Your task to perform on an android device: Is it going to rain this weekend? Image 0: 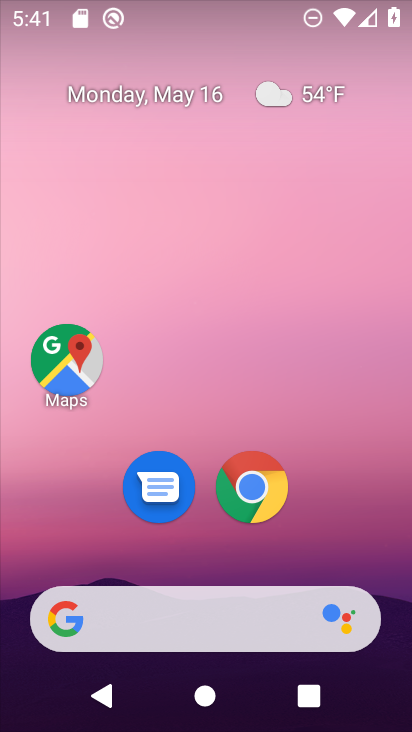
Step 0: drag from (176, 589) to (145, 240)
Your task to perform on an android device: Is it going to rain this weekend? Image 1: 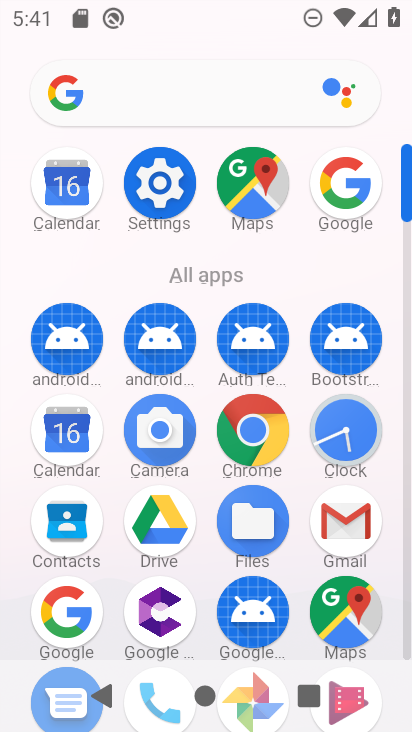
Step 1: drag from (148, 654) to (113, 332)
Your task to perform on an android device: Is it going to rain this weekend? Image 2: 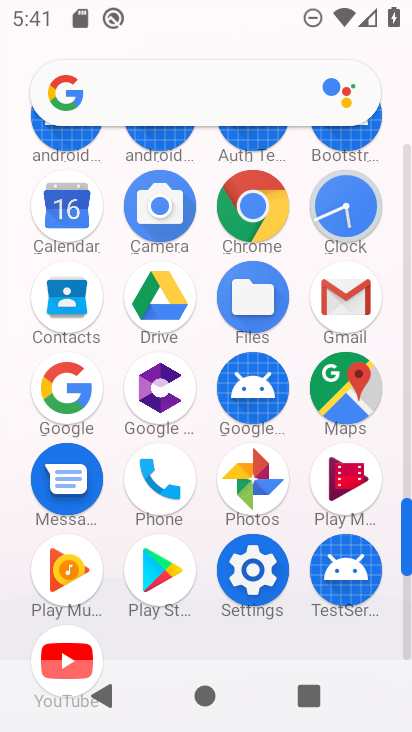
Step 2: click (74, 377)
Your task to perform on an android device: Is it going to rain this weekend? Image 3: 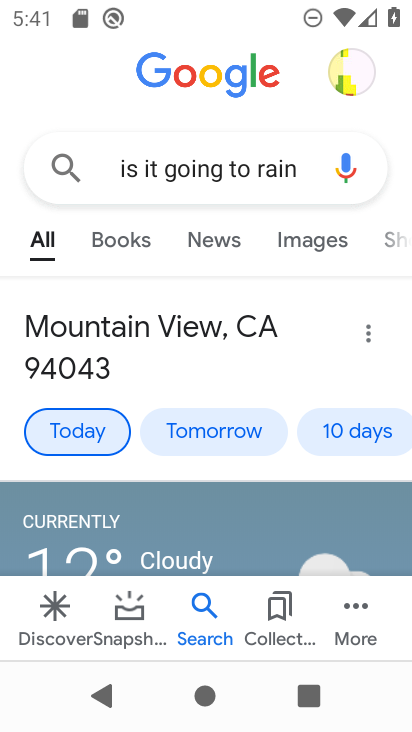
Step 3: click (337, 433)
Your task to perform on an android device: Is it going to rain this weekend? Image 4: 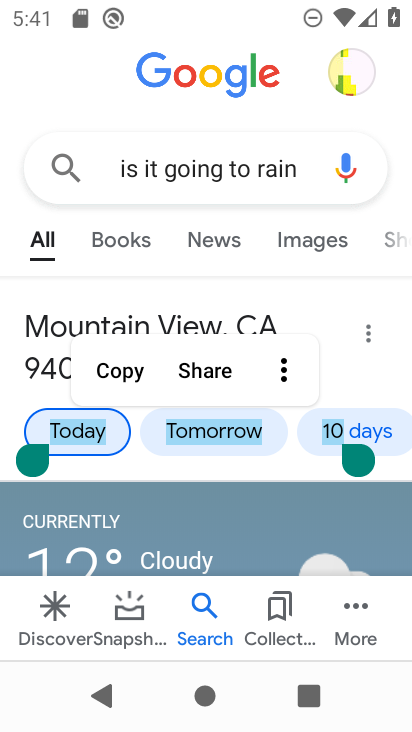
Step 4: click (379, 434)
Your task to perform on an android device: Is it going to rain this weekend? Image 5: 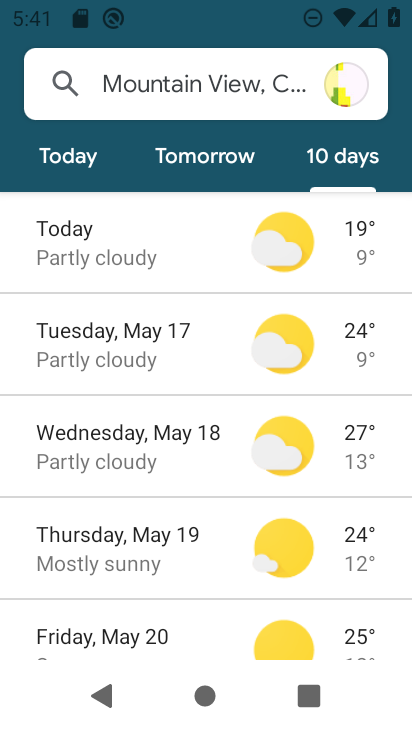
Step 5: task complete